Your task to perform on an android device: Open the web browser Image 0: 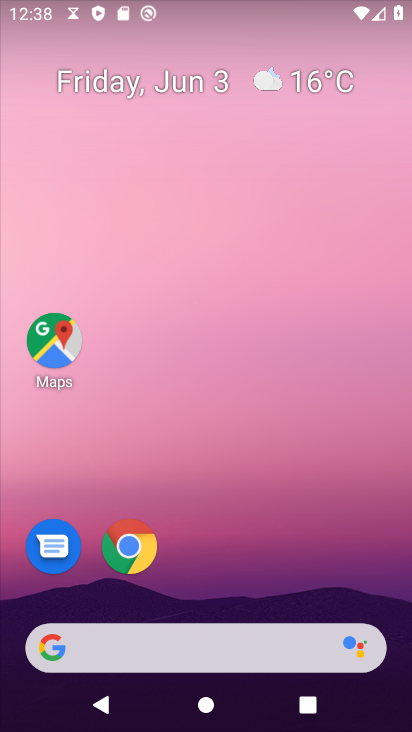
Step 0: click (126, 555)
Your task to perform on an android device: Open the web browser Image 1: 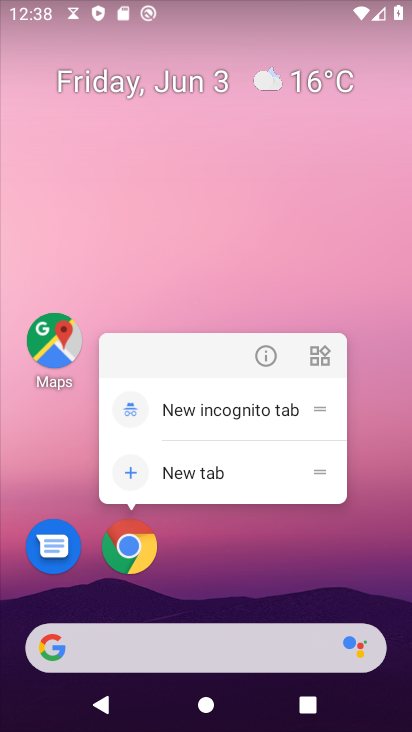
Step 1: click (139, 540)
Your task to perform on an android device: Open the web browser Image 2: 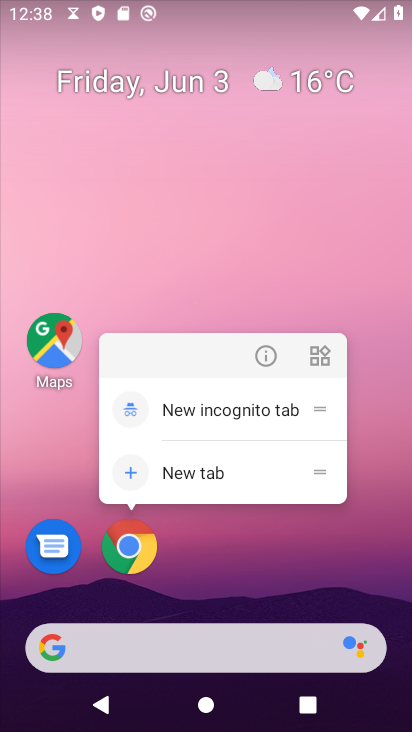
Step 2: click (119, 547)
Your task to perform on an android device: Open the web browser Image 3: 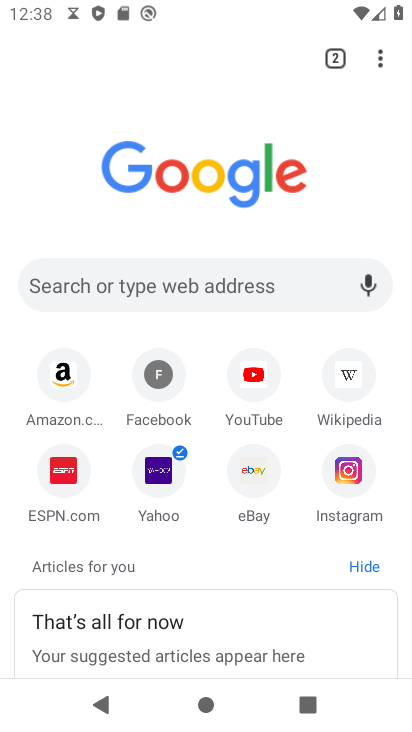
Step 3: task complete